Your task to perform on an android device: delete the emails in spam in the gmail app Image 0: 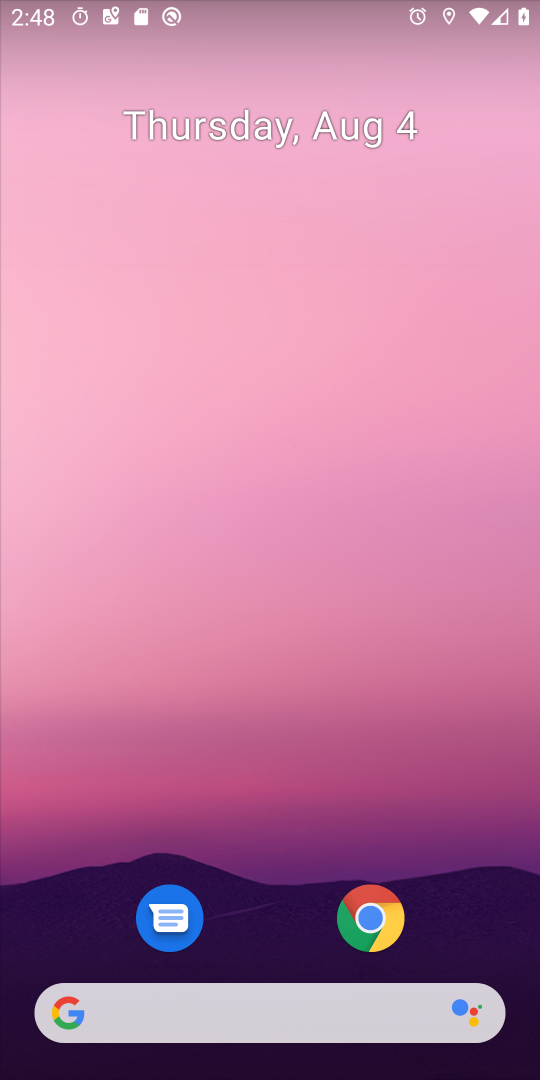
Step 0: drag from (267, 930) to (229, 317)
Your task to perform on an android device: delete the emails in spam in the gmail app Image 1: 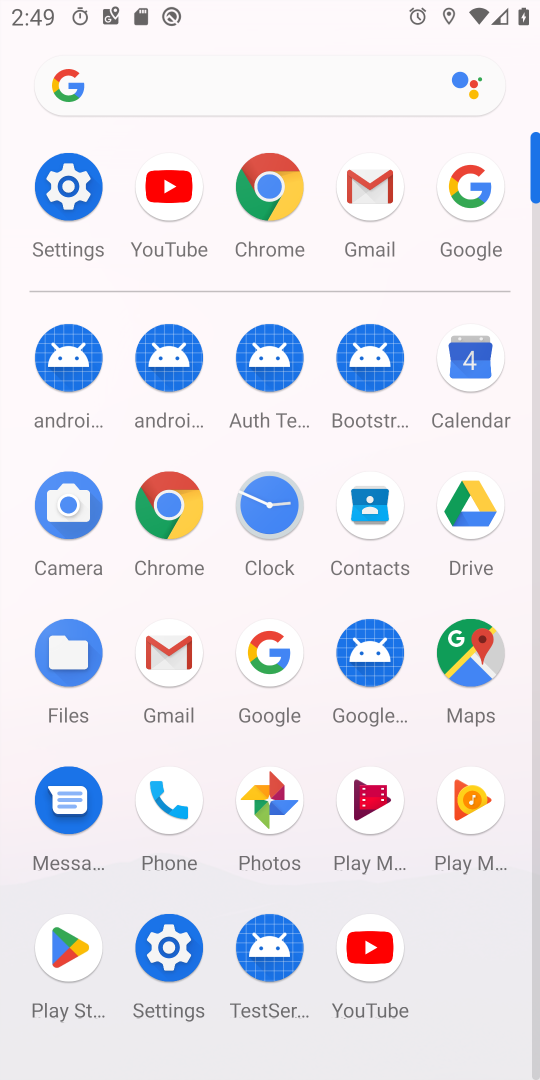
Step 1: click (357, 180)
Your task to perform on an android device: delete the emails in spam in the gmail app Image 2: 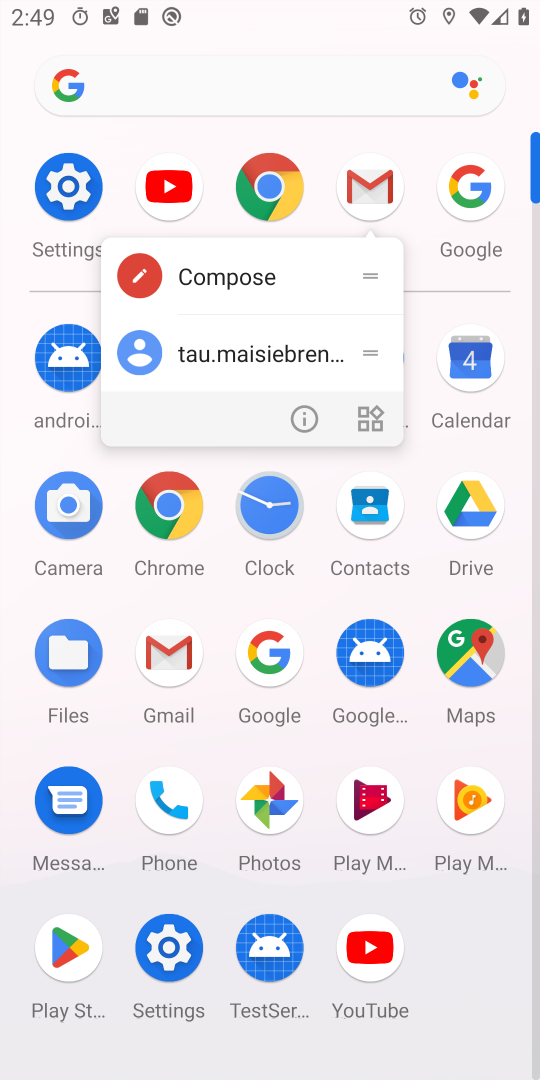
Step 2: click (357, 180)
Your task to perform on an android device: delete the emails in spam in the gmail app Image 3: 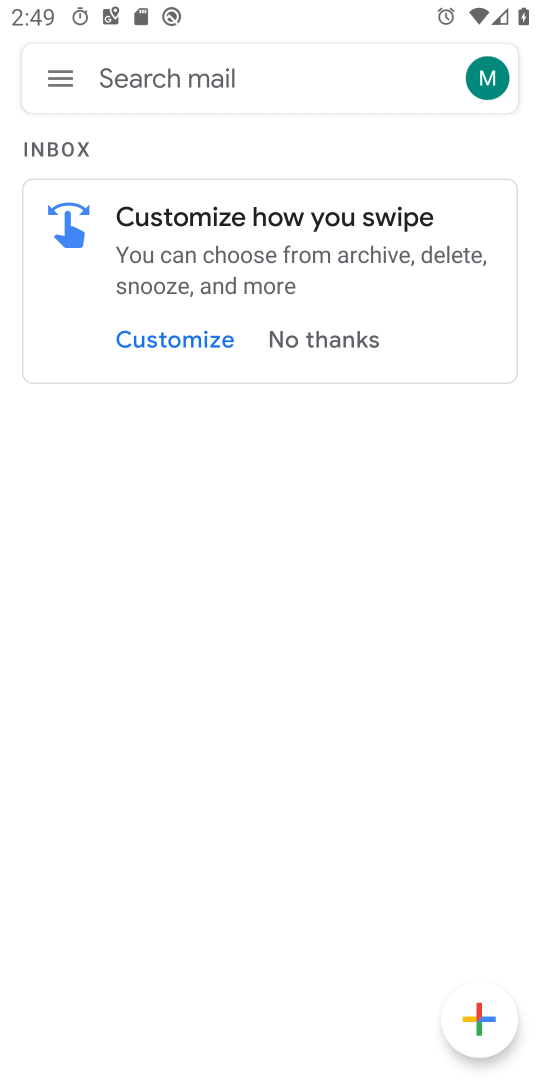
Step 3: click (64, 79)
Your task to perform on an android device: delete the emails in spam in the gmail app Image 4: 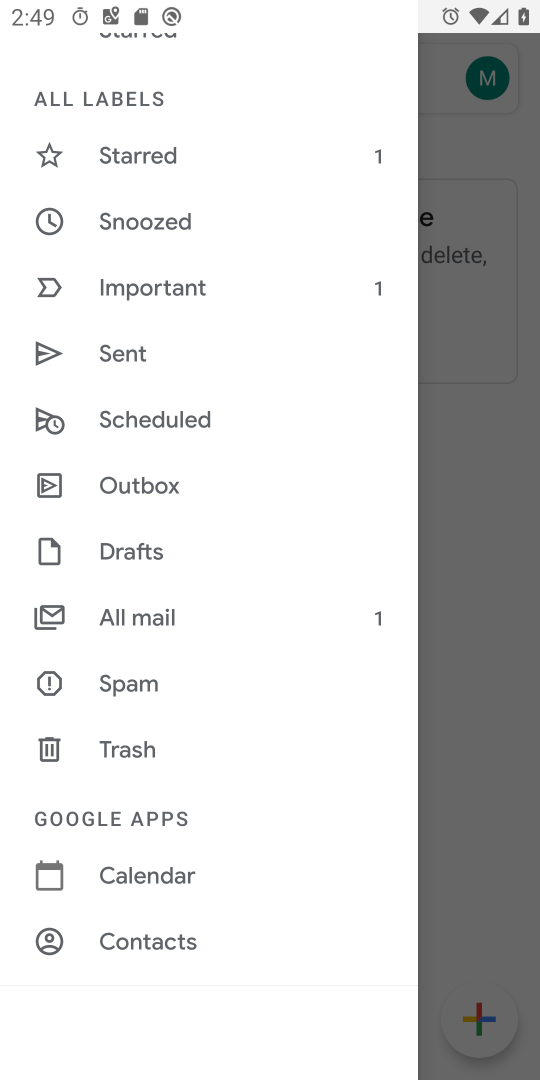
Step 4: click (155, 677)
Your task to perform on an android device: delete the emails in spam in the gmail app Image 5: 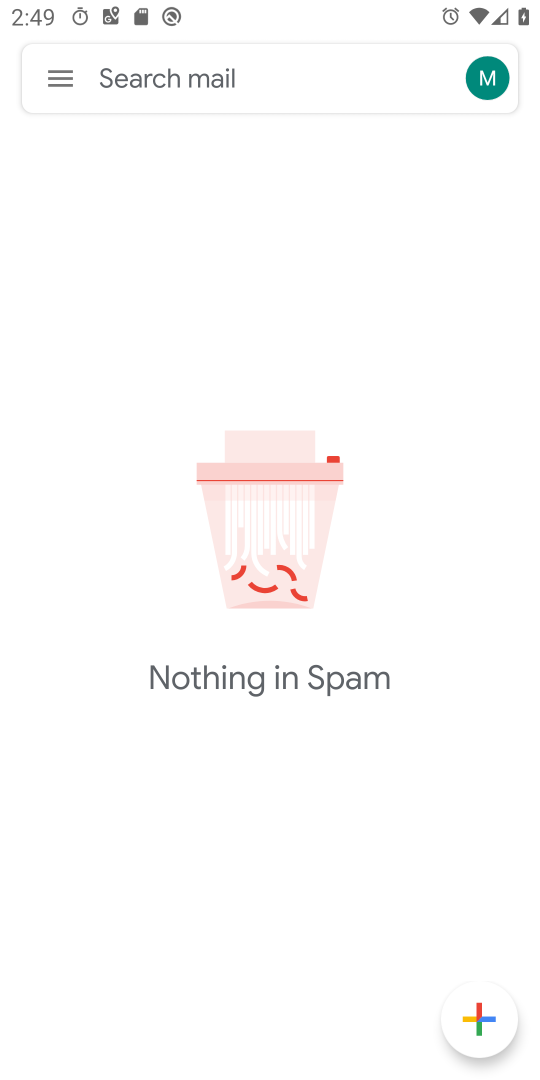
Step 5: task complete